Your task to perform on an android device: Do I have any events this weekend? Image 0: 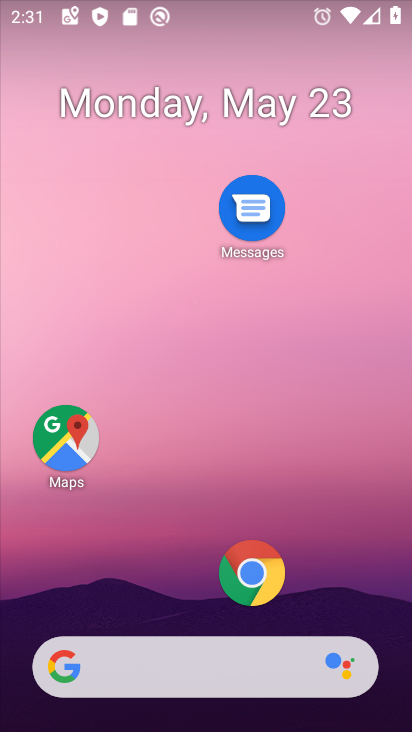
Step 0: drag from (316, 684) to (290, 43)
Your task to perform on an android device: Do I have any events this weekend? Image 1: 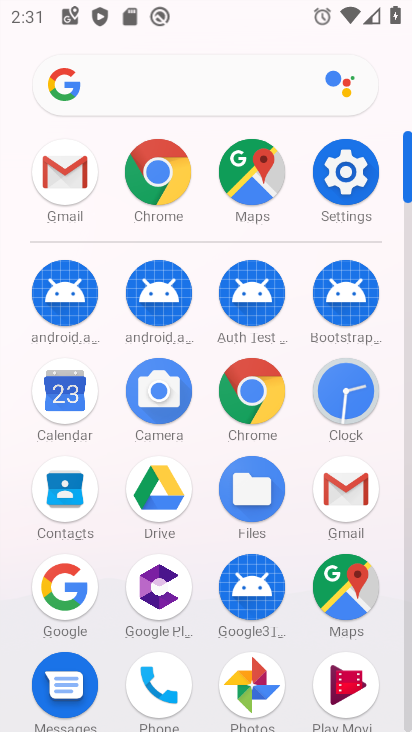
Step 1: click (68, 391)
Your task to perform on an android device: Do I have any events this weekend? Image 2: 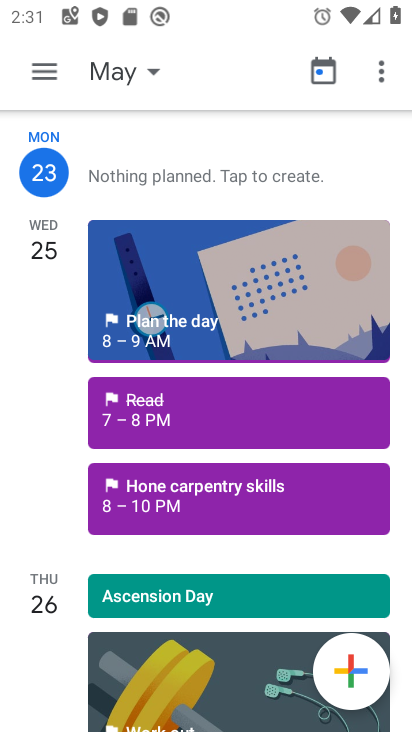
Step 2: click (144, 71)
Your task to perform on an android device: Do I have any events this weekend? Image 3: 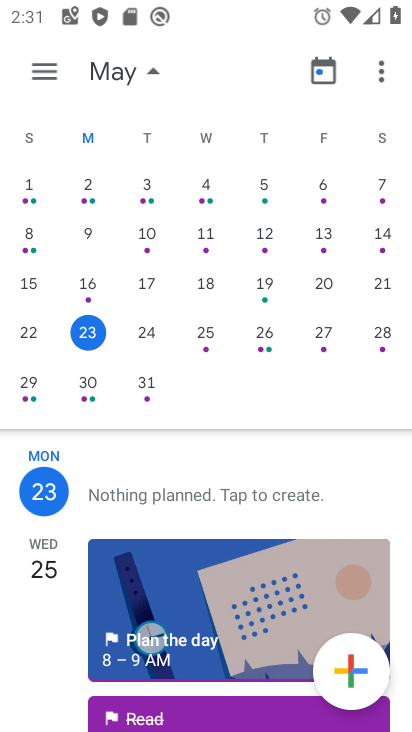
Step 3: click (379, 335)
Your task to perform on an android device: Do I have any events this weekend? Image 4: 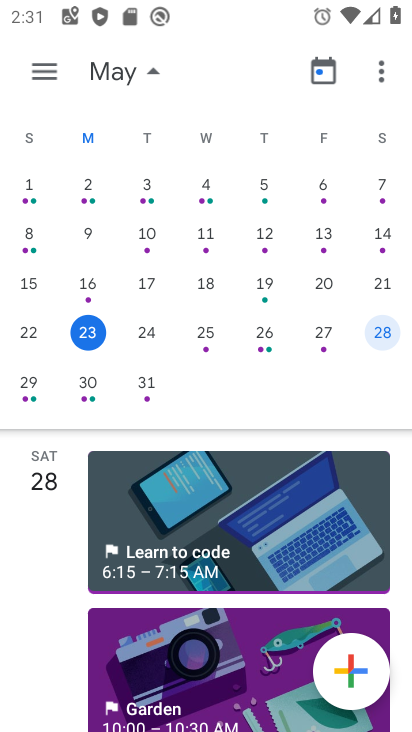
Step 4: click (390, 332)
Your task to perform on an android device: Do I have any events this weekend? Image 5: 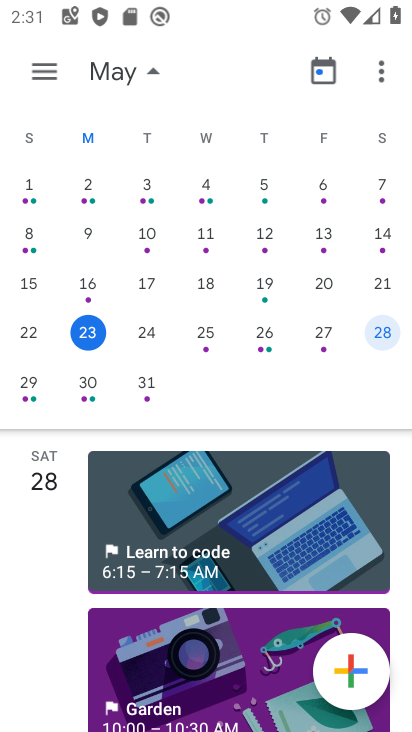
Step 5: task complete